Your task to perform on an android device: Open eBay Image 0: 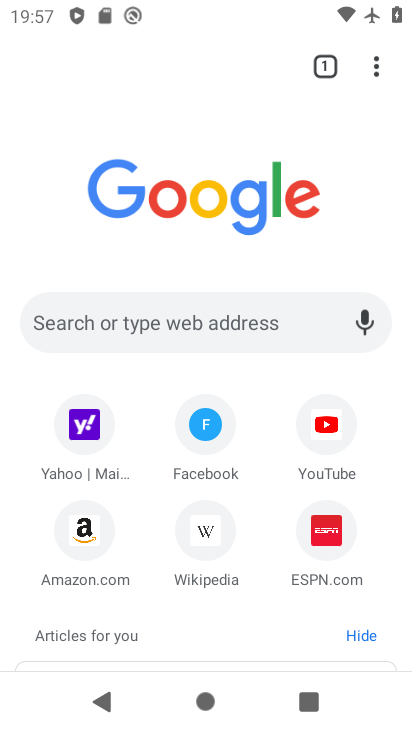
Step 0: click (224, 321)
Your task to perform on an android device: Open eBay Image 1: 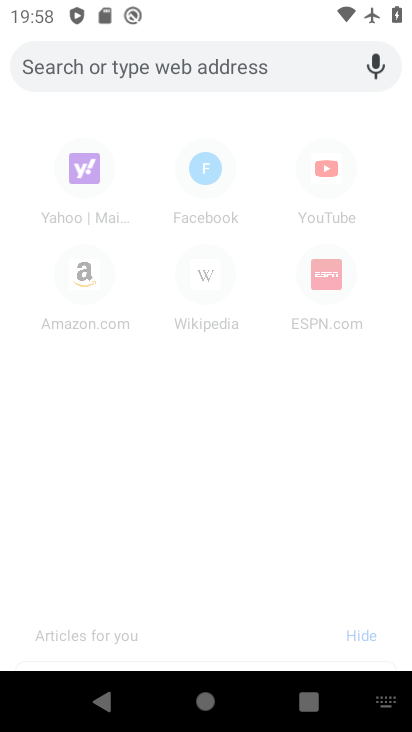
Step 1: type "ebay"
Your task to perform on an android device: Open eBay Image 2: 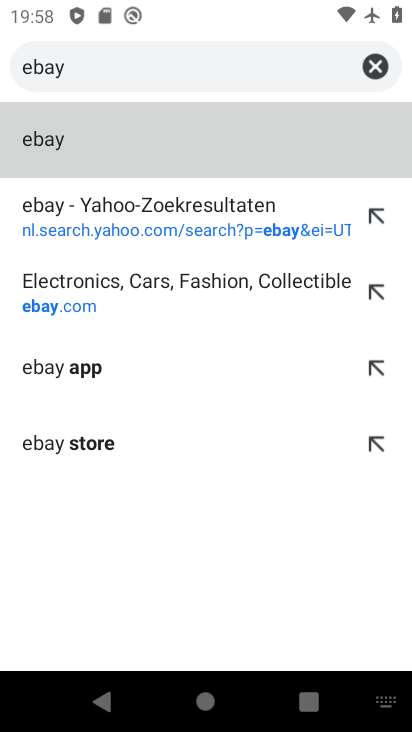
Step 2: click (48, 138)
Your task to perform on an android device: Open eBay Image 3: 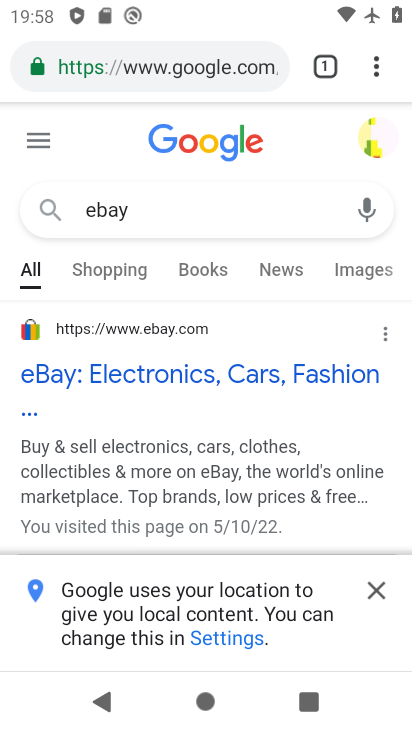
Step 3: click (105, 361)
Your task to perform on an android device: Open eBay Image 4: 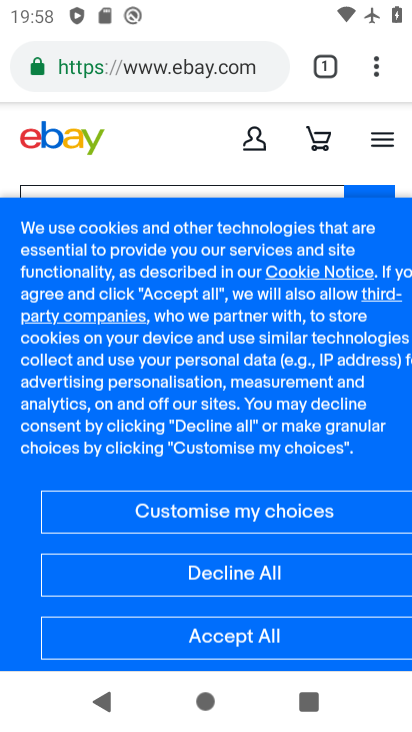
Step 4: task complete